Your task to perform on an android device: Open Amazon Image 0: 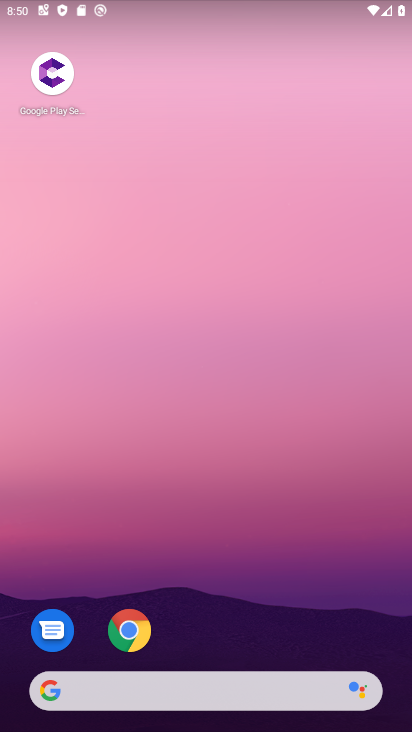
Step 0: click (141, 631)
Your task to perform on an android device: Open Amazon Image 1: 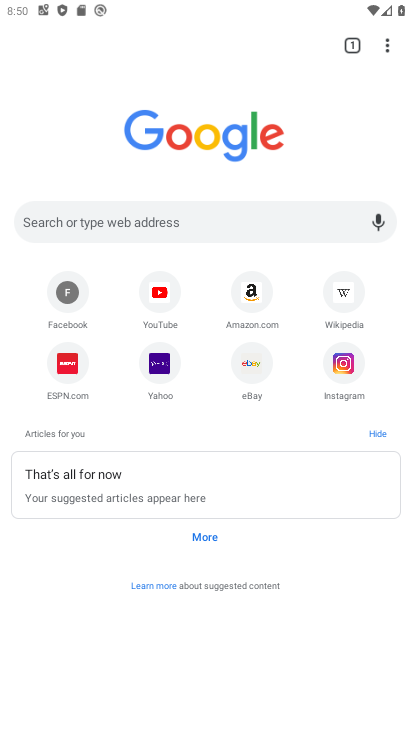
Step 1: click (255, 293)
Your task to perform on an android device: Open Amazon Image 2: 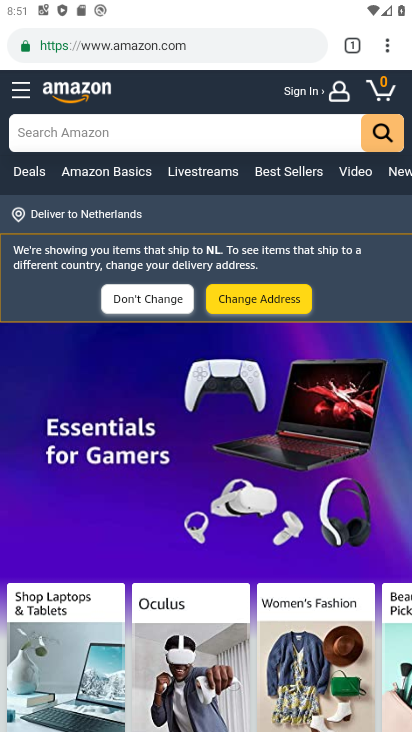
Step 2: task complete